Your task to perform on an android device: change the clock display to analog Image 0: 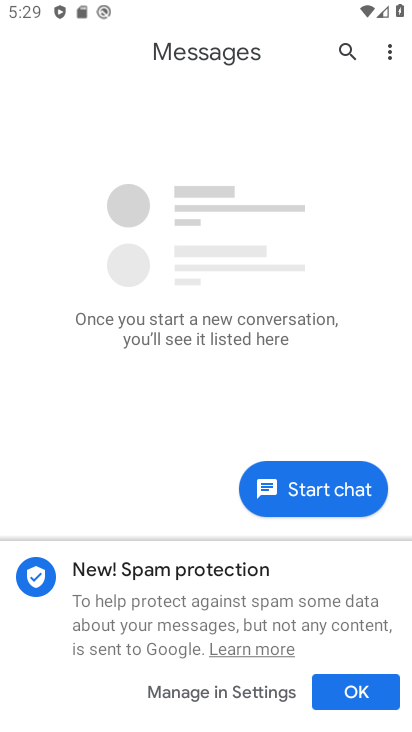
Step 0: press home button
Your task to perform on an android device: change the clock display to analog Image 1: 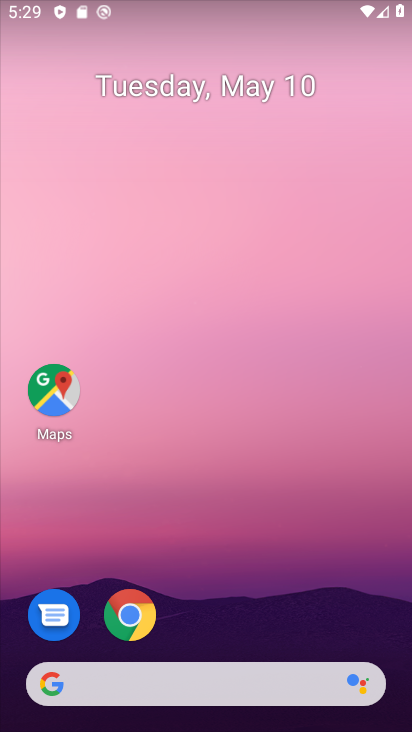
Step 1: drag from (263, 627) to (274, 11)
Your task to perform on an android device: change the clock display to analog Image 2: 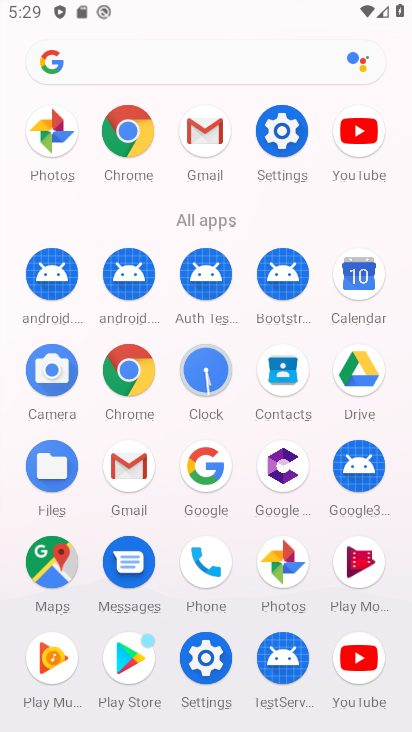
Step 2: click (205, 382)
Your task to perform on an android device: change the clock display to analog Image 3: 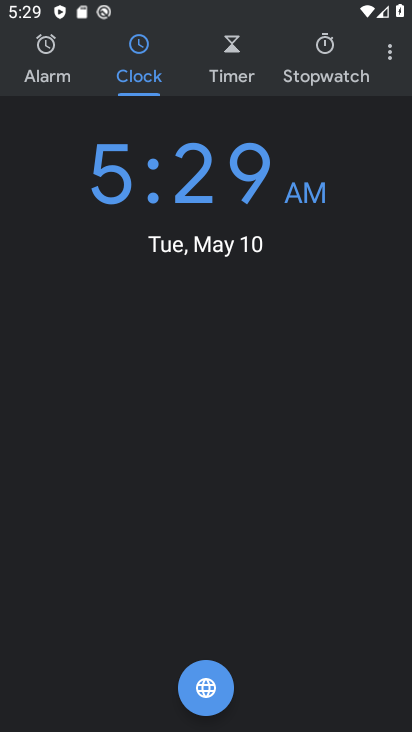
Step 3: click (395, 65)
Your task to perform on an android device: change the clock display to analog Image 4: 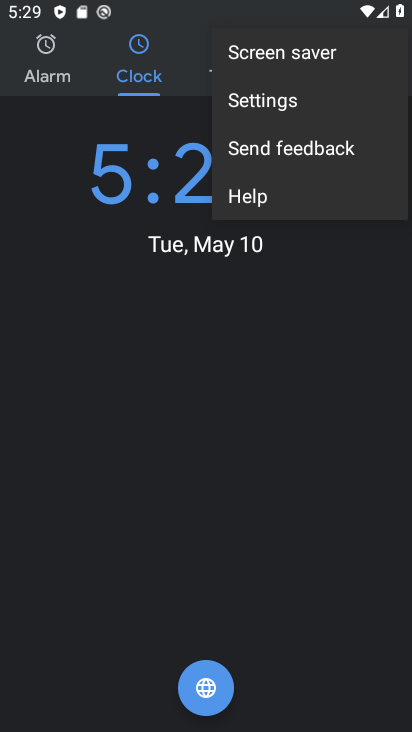
Step 4: click (291, 102)
Your task to perform on an android device: change the clock display to analog Image 5: 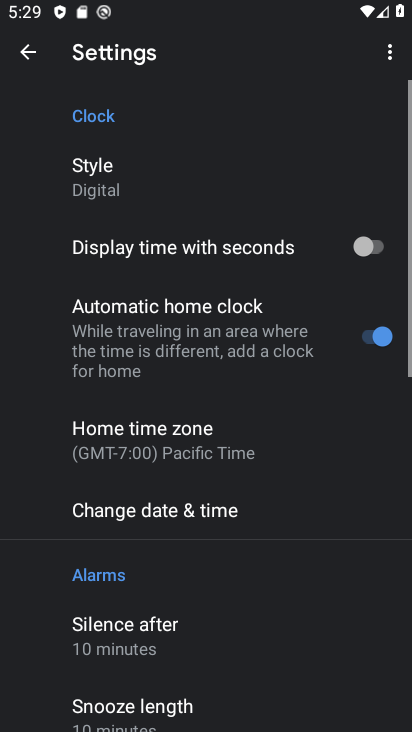
Step 5: click (107, 200)
Your task to perform on an android device: change the clock display to analog Image 6: 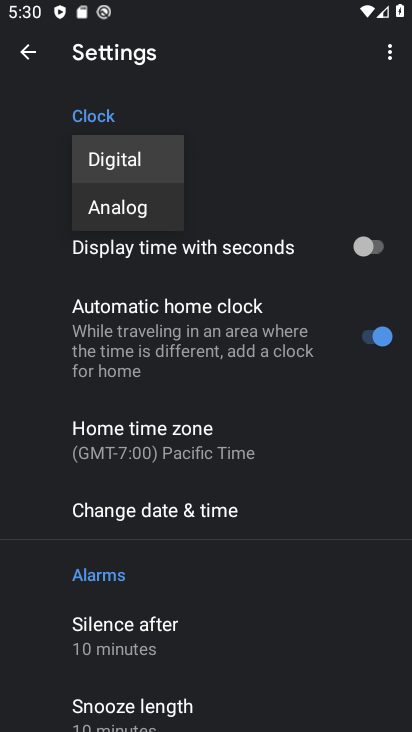
Step 6: click (146, 214)
Your task to perform on an android device: change the clock display to analog Image 7: 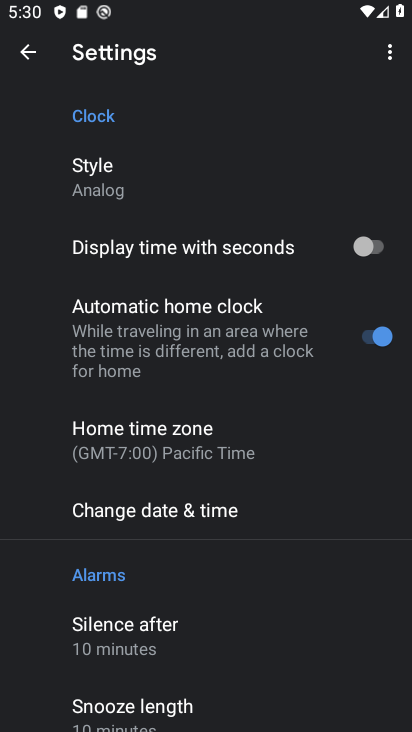
Step 7: task complete